Your task to perform on an android device: delete location history Image 0: 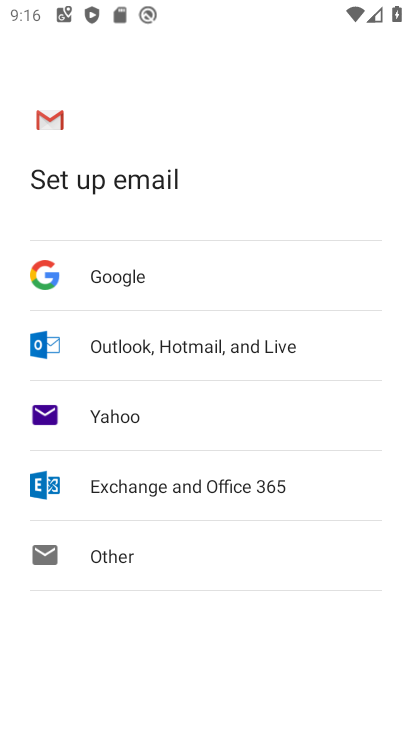
Step 0: press home button
Your task to perform on an android device: delete location history Image 1: 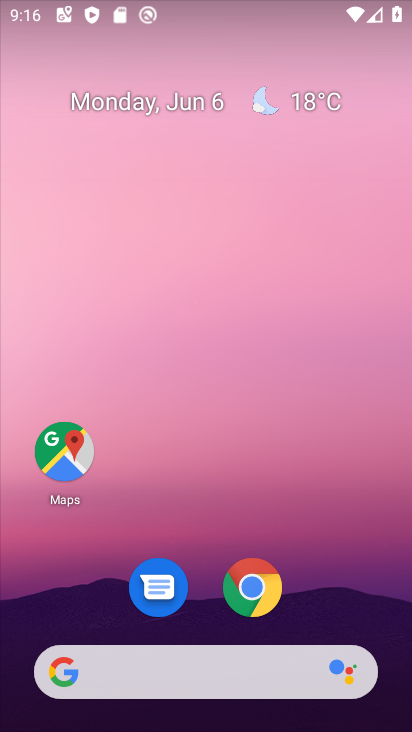
Step 1: drag from (324, 521) to (278, 81)
Your task to perform on an android device: delete location history Image 2: 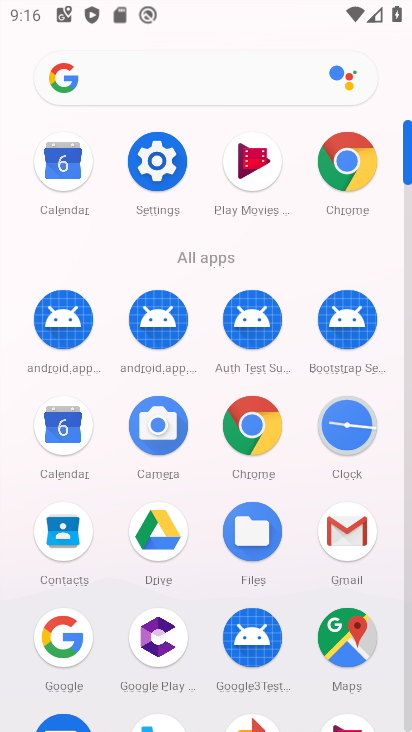
Step 2: click (347, 637)
Your task to perform on an android device: delete location history Image 3: 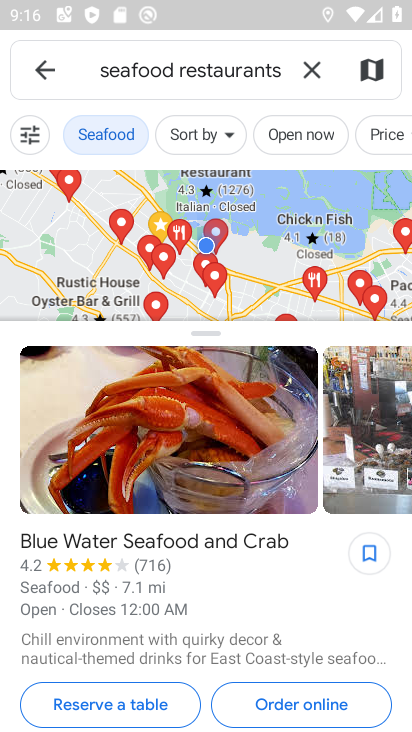
Step 3: click (21, 61)
Your task to perform on an android device: delete location history Image 4: 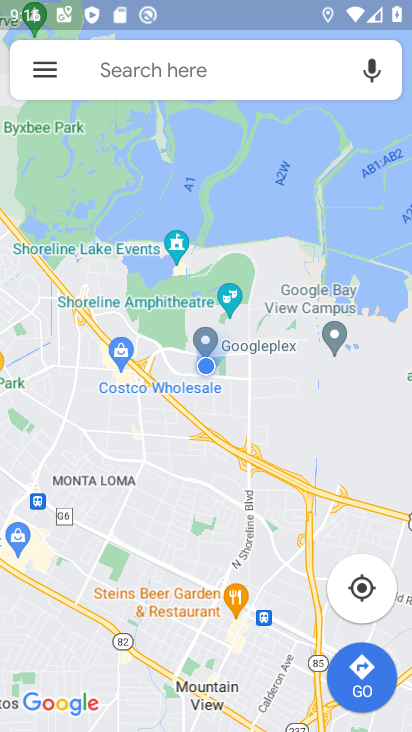
Step 4: click (43, 62)
Your task to perform on an android device: delete location history Image 5: 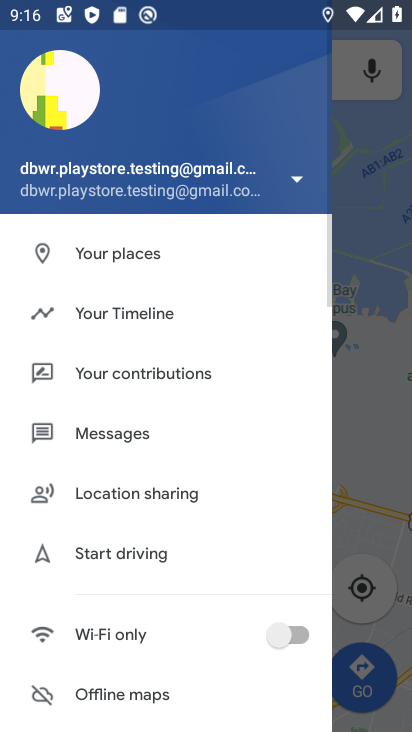
Step 5: drag from (145, 622) to (146, 261)
Your task to perform on an android device: delete location history Image 6: 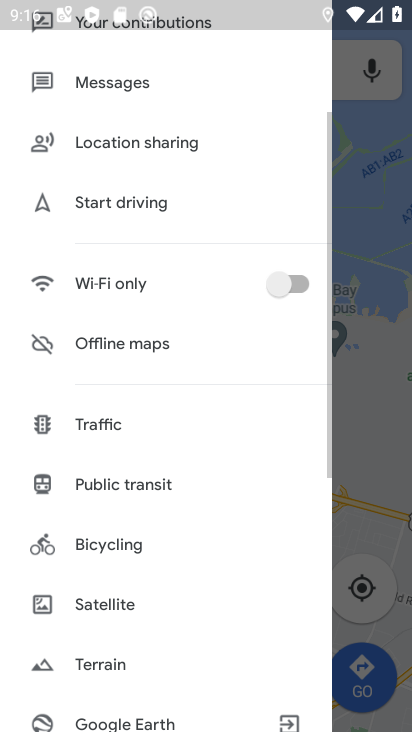
Step 6: drag from (144, 527) to (164, 268)
Your task to perform on an android device: delete location history Image 7: 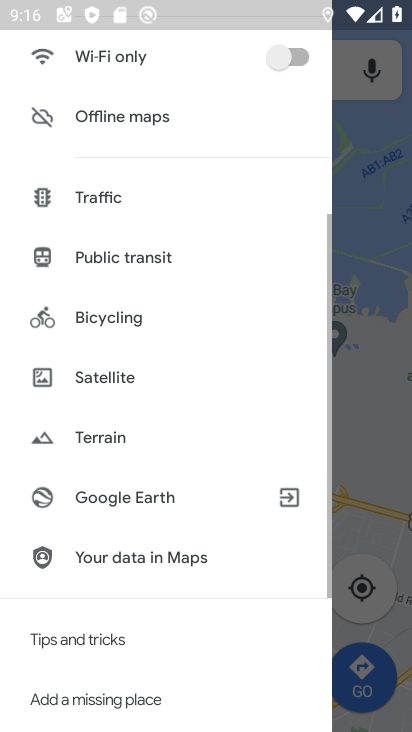
Step 7: click (165, 255)
Your task to perform on an android device: delete location history Image 8: 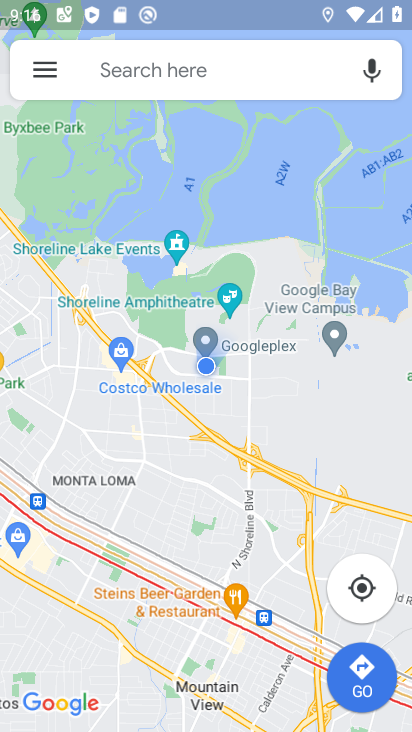
Step 8: click (41, 73)
Your task to perform on an android device: delete location history Image 9: 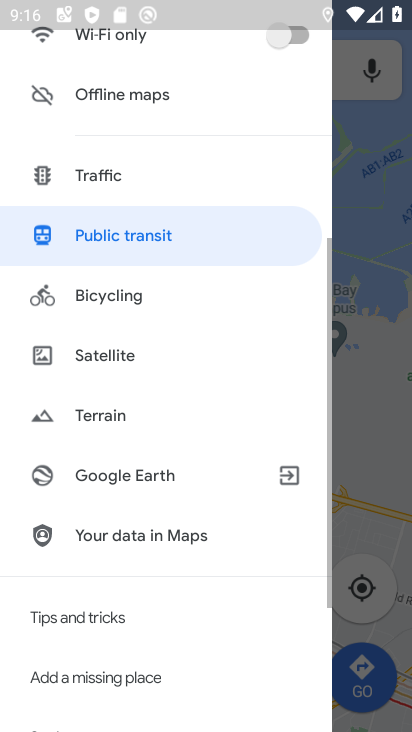
Step 9: drag from (157, 619) to (197, 329)
Your task to perform on an android device: delete location history Image 10: 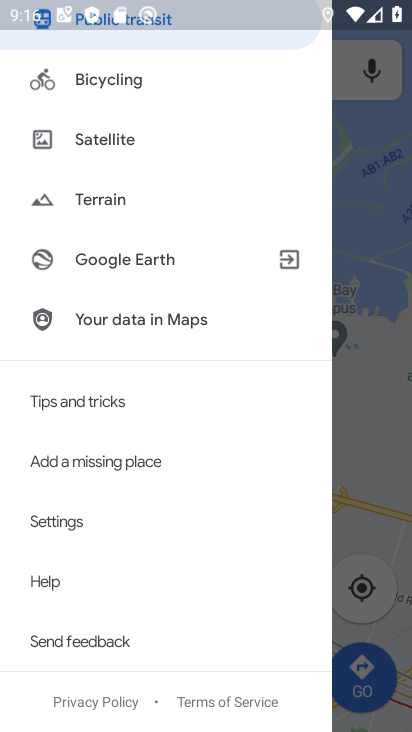
Step 10: click (59, 524)
Your task to perform on an android device: delete location history Image 11: 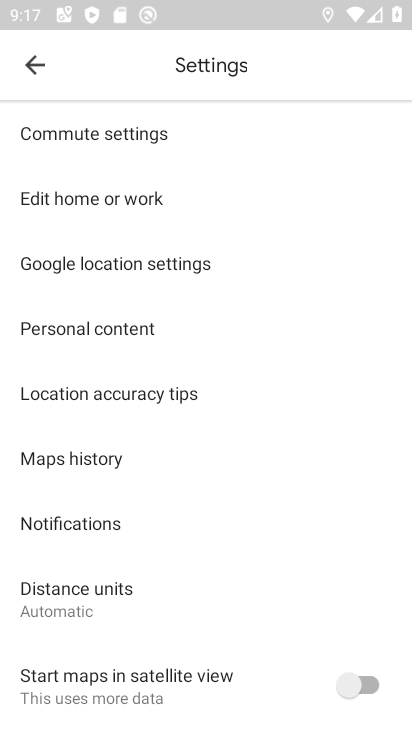
Step 11: click (100, 446)
Your task to perform on an android device: delete location history Image 12: 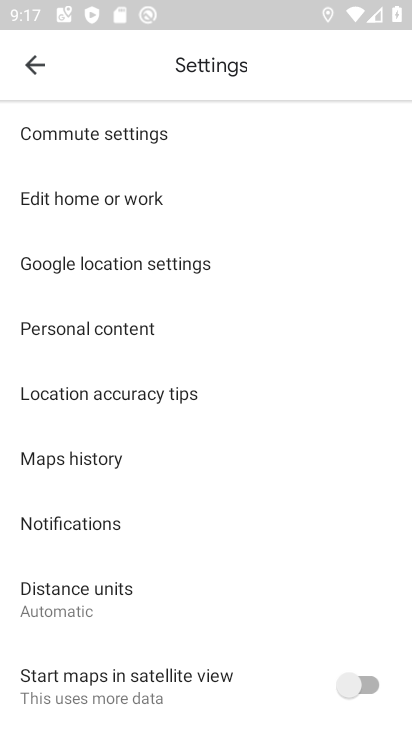
Step 12: click (94, 470)
Your task to perform on an android device: delete location history Image 13: 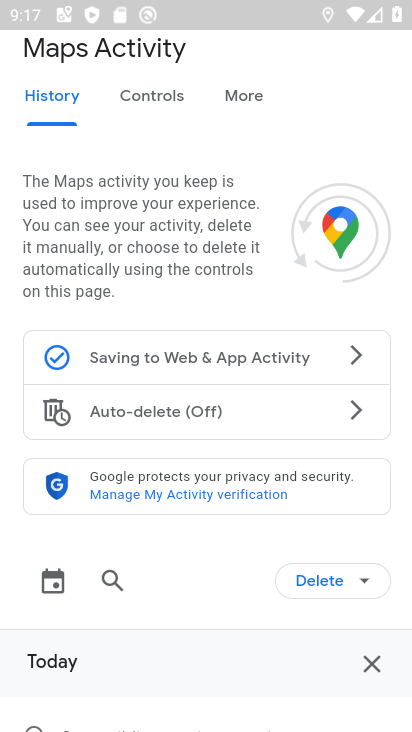
Step 13: click (320, 583)
Your task to perform on an android device: delete location history Image 14: 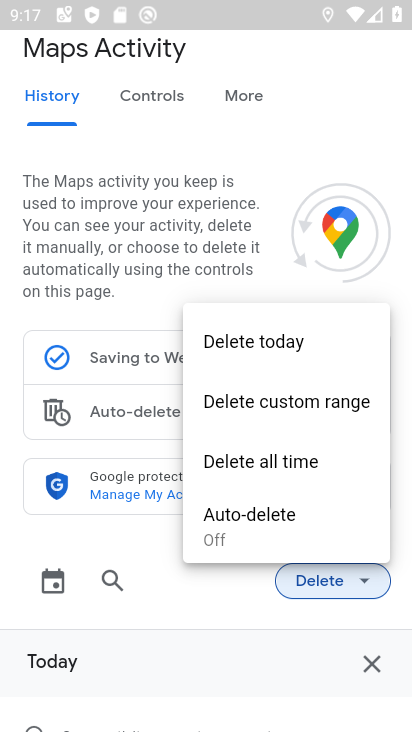
Step 14: click (321, 582)
Your task to perform on an android device: delete location history Image 15: 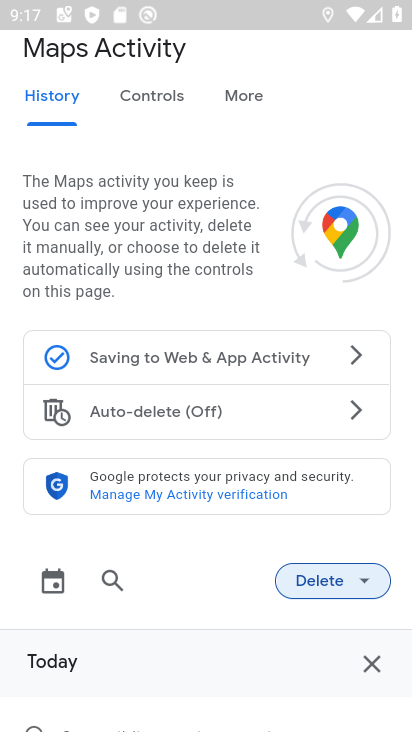
Step 15: click (383, 576)
Your task to perform on an android device: delete location history Image 16: 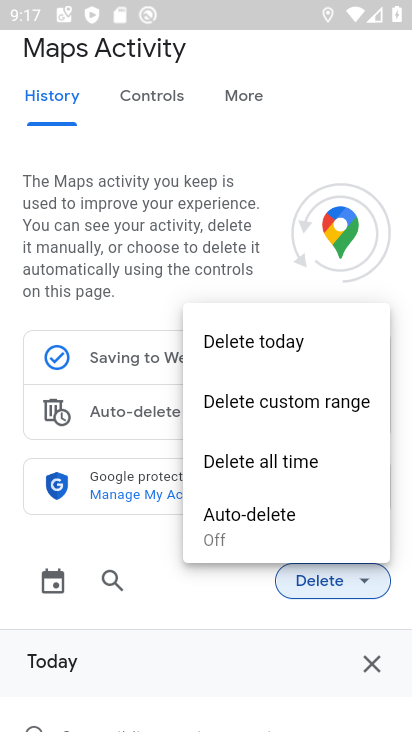
Step 16: click (272, 462)
Your task to perform on an android device: delete location history Image 17: 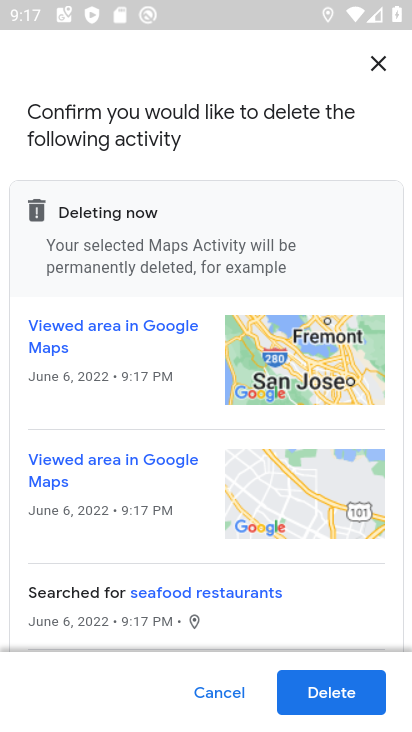
Step 17: click (347, 690)
Your task to perform on an android device: delete location history Image 18: 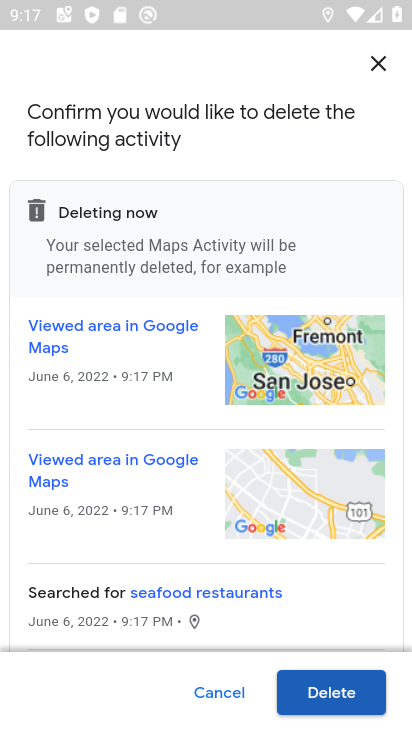
Step 18: click (347, 689)
Your task to perform on an android device: delete location history Image 19: 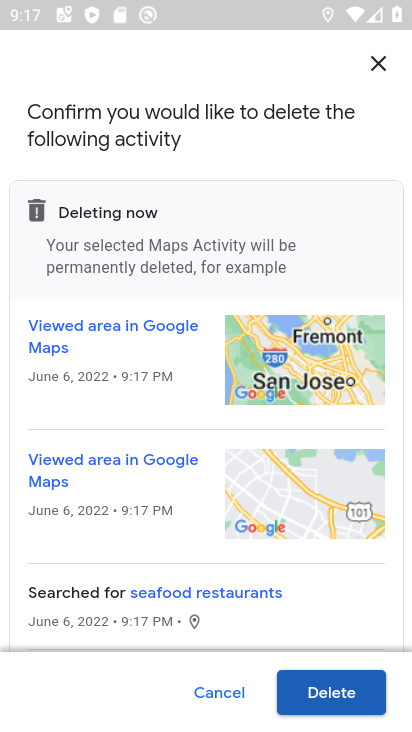
Step 19: click (347, 688)
Your task to perform on an android device: delete location history Image 20: 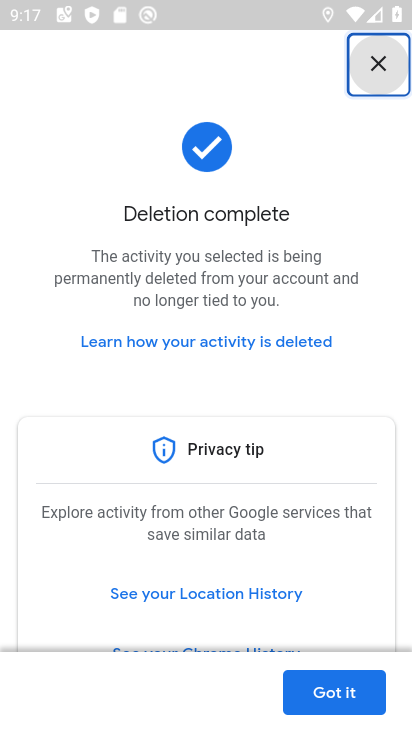
Step 20: click (331, 694)
Your task to perform on an android device: delete location history Image 21: 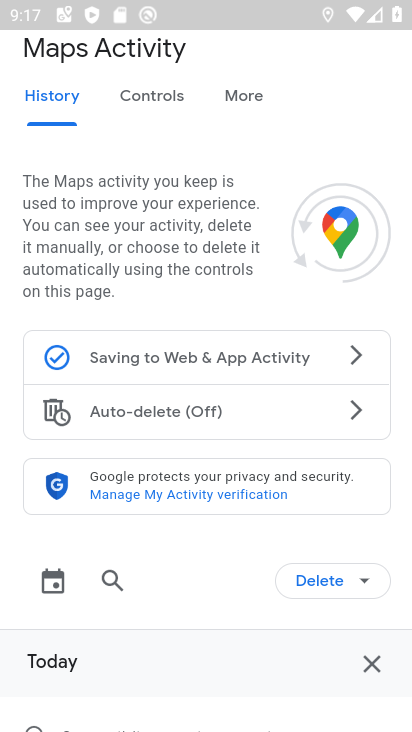
Step 21: task complete